Your task to perform on an android device: Go to CNN.com Image 0: 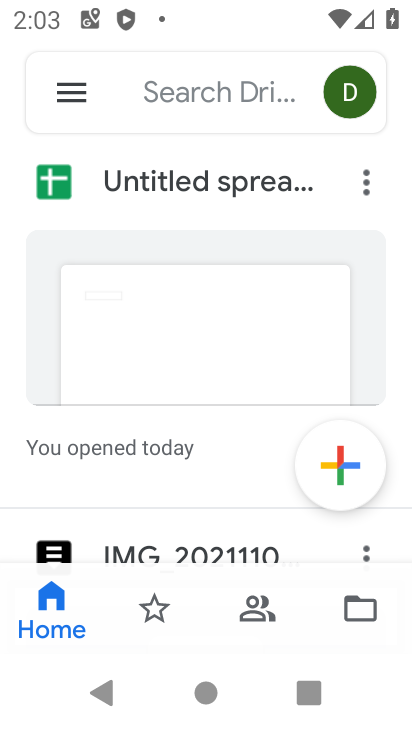
Step 0: press home button
Your task to perform on an android device: Go to CNN.com Image 1: 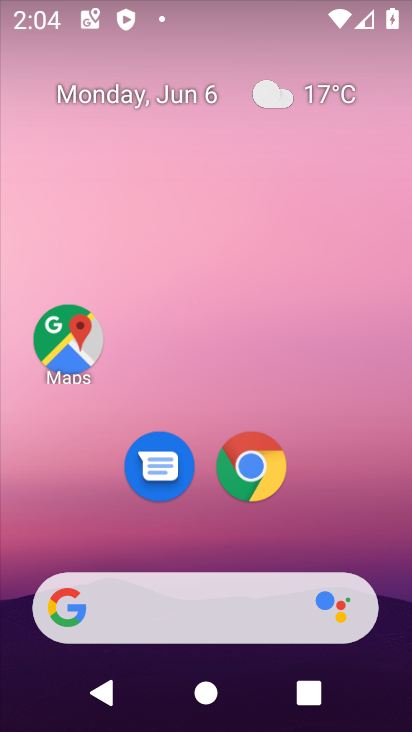
Step 1: click (226, 607)
Your task to perform on an android device: Go to CNN.com Image 2: 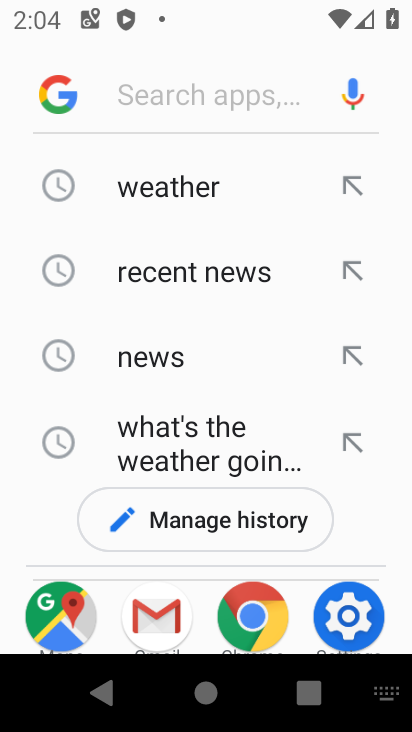
Step 2: type "CNN.com"
Your task to perform on an android device: Go to CNN.com Image 3: 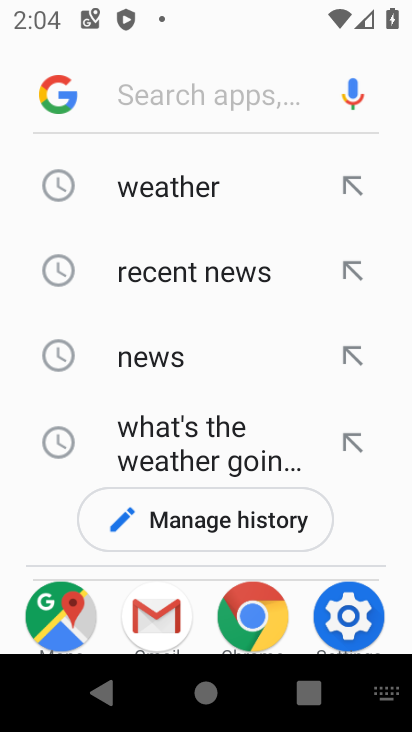
Step 3: click (204, 82)
Your task to perform on an android device: Go to CNN.com Image 4: 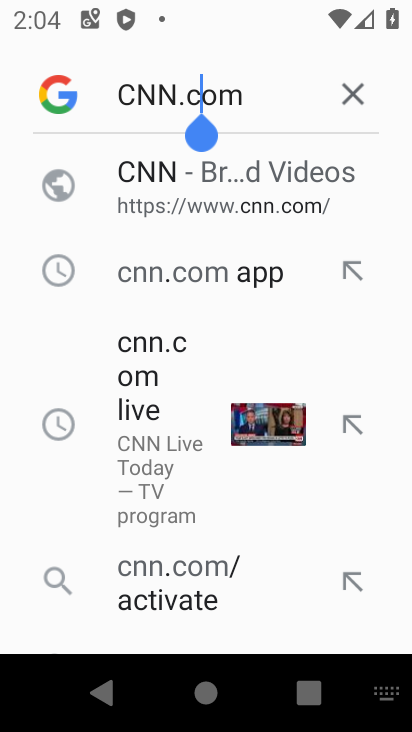
Step 4: click (215, 172)
Your task to perform on an android device: Go to CNN.com Image 5: 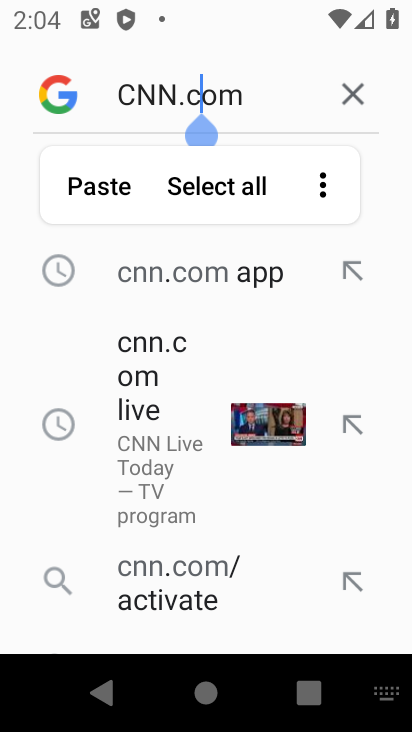
Step 5: click (118, 276)
Your task to perform on an android device: Go to CNN.com Image 6: 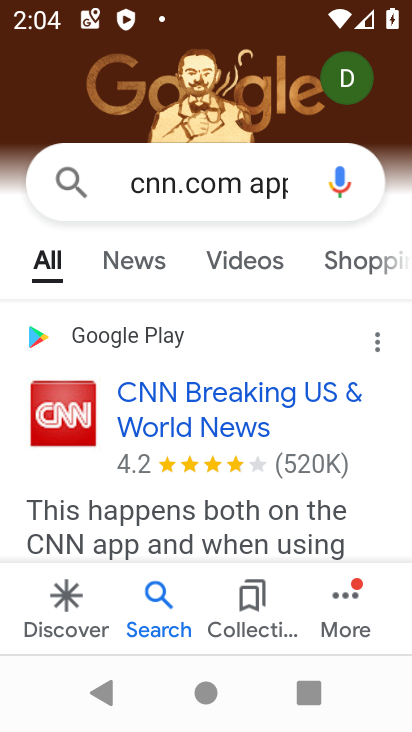
Step 6: drag from (141, 524) to (232, 94)
Your task to perform on an android device: Go to CNN.com Image 7: 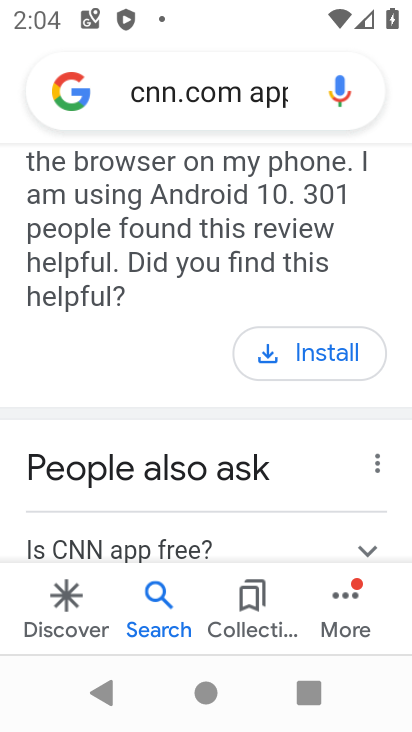
Step 7: drag from (208, 524) to (332, 0)
Your task to perform on an android device: Go to CNN.com Image 8: 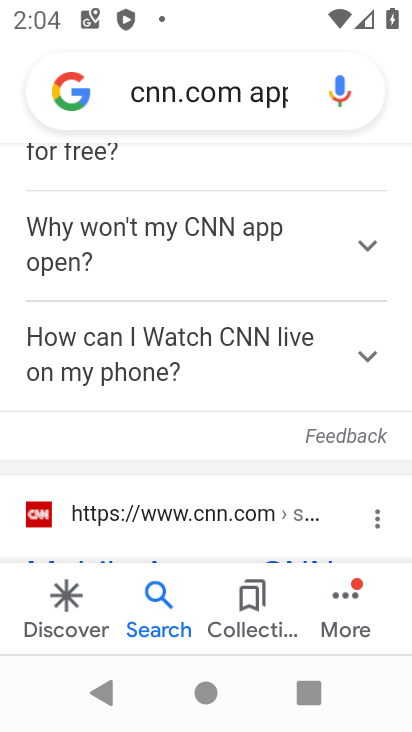
Step 8: click (180, 513)
Your task to perform on an android device: Go to CNN.com Image 9: 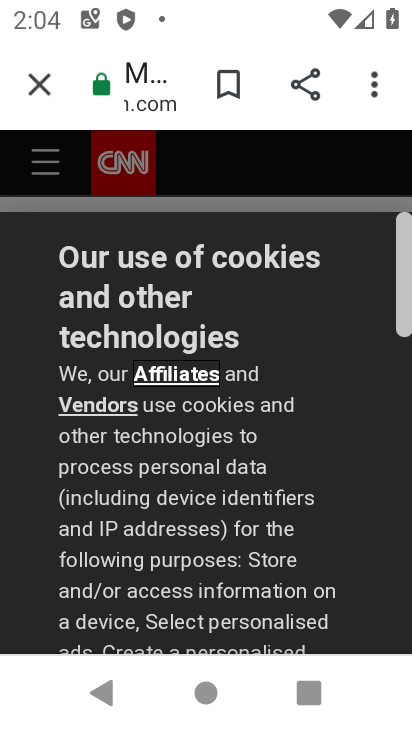
Step 9: task complete